Your task to perform on an android device: Add "usb-c to usb-a" to the cart on bestbuy, then select checkout. Image 0: 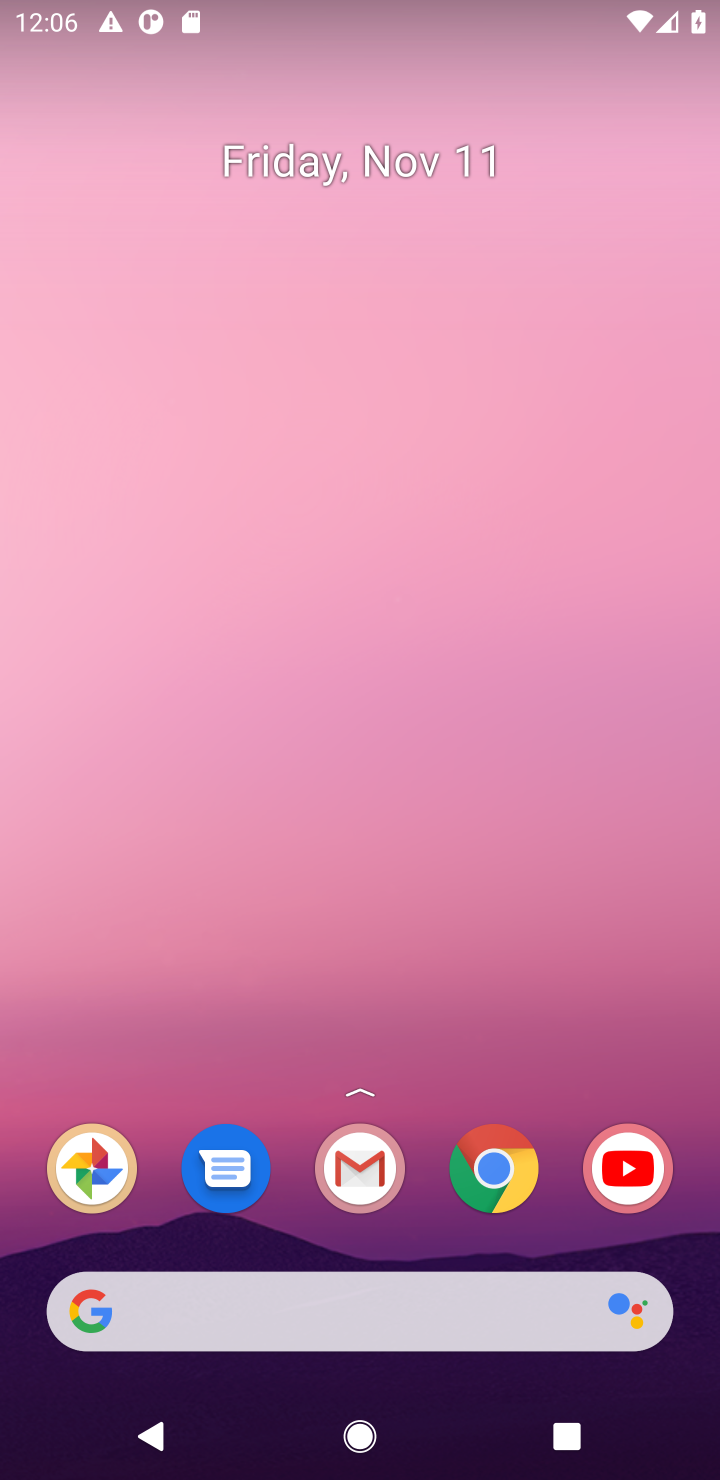
Step 0: click (487, 1182)
Your task to perform on an android device: Add "usb-c to usb-a" to the cart on bestbuy, then select checkout. Image 1: 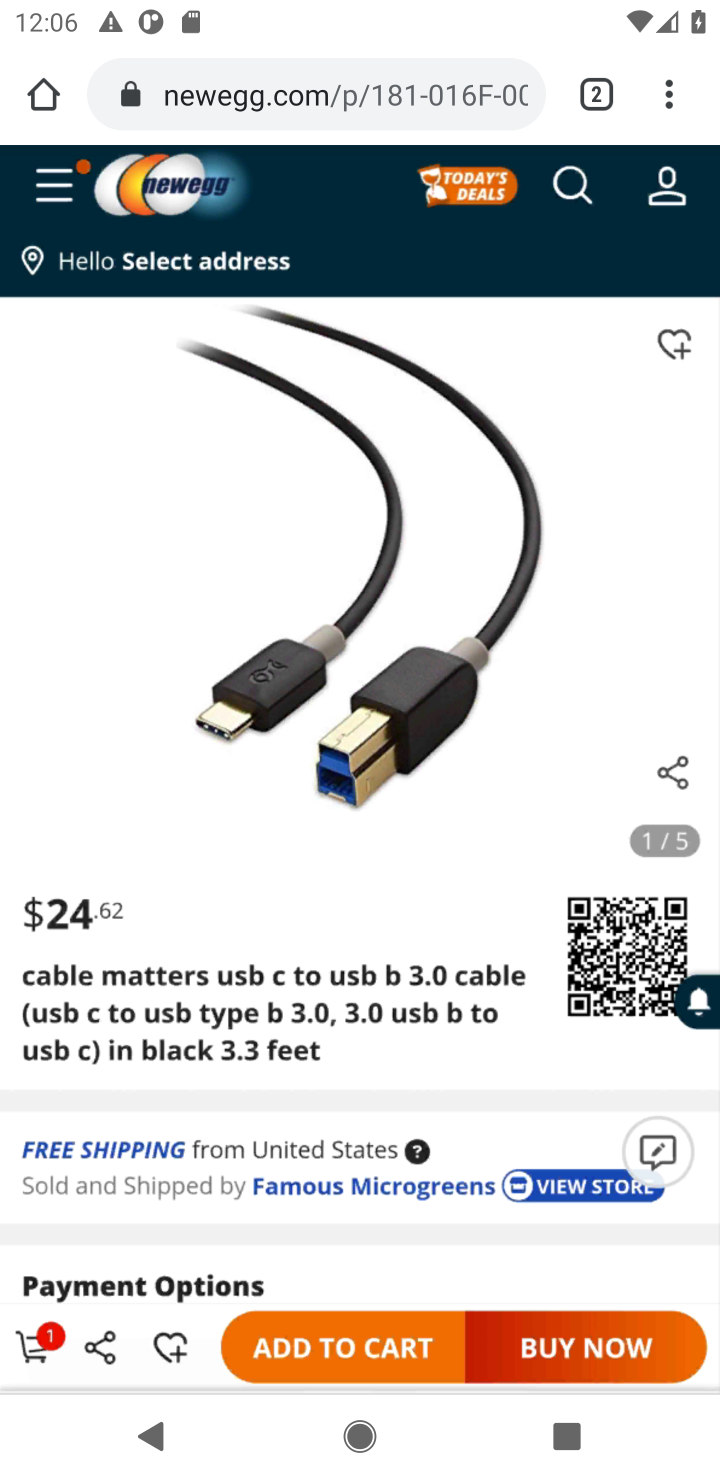
Step 1: click (348, 111)
Your task to perform on an android device: Add "usb-c to usb-a" to the cart on bestbuy, then select checkout. Image 2: 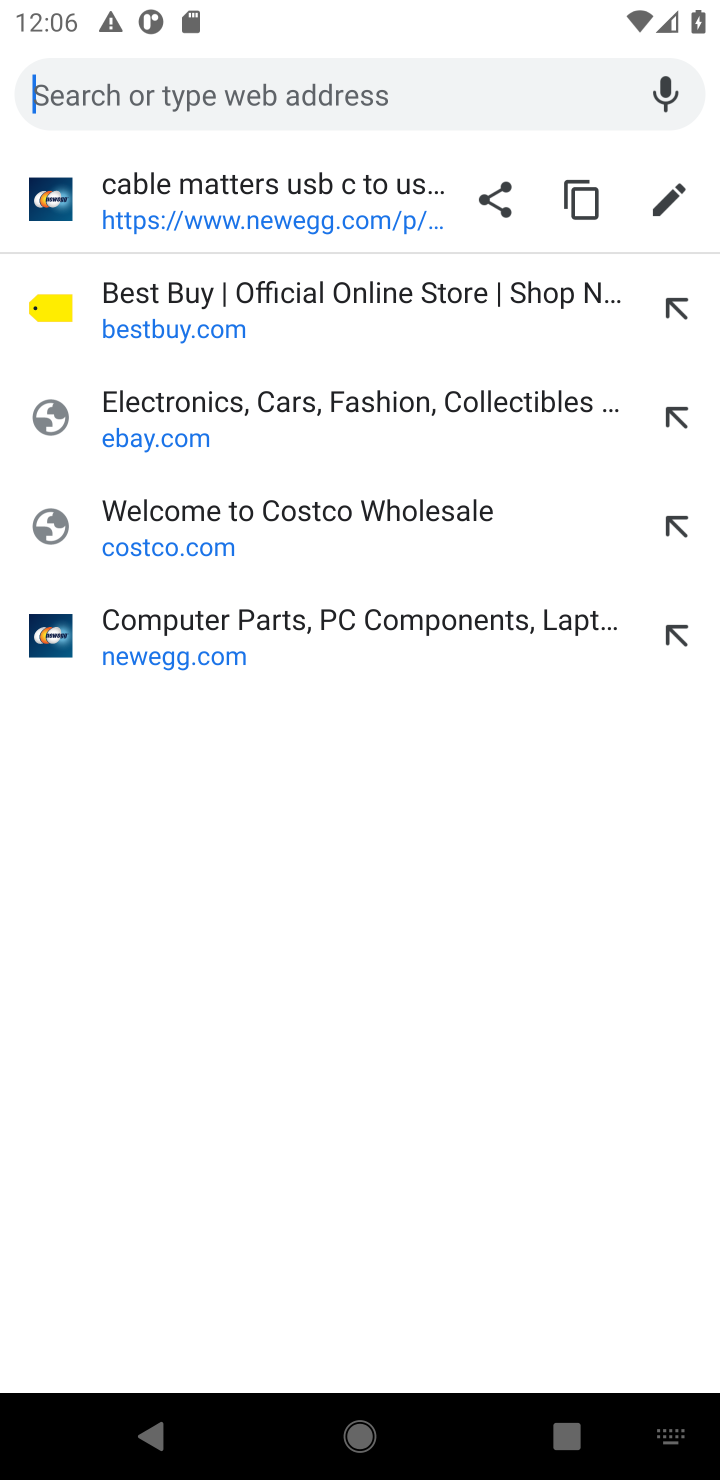
Step 2: click (152, 351)
Your task to perform on an android device: Add "usb-c to usb-a" to the cart on bestbuy, then select checkout. Image 3: 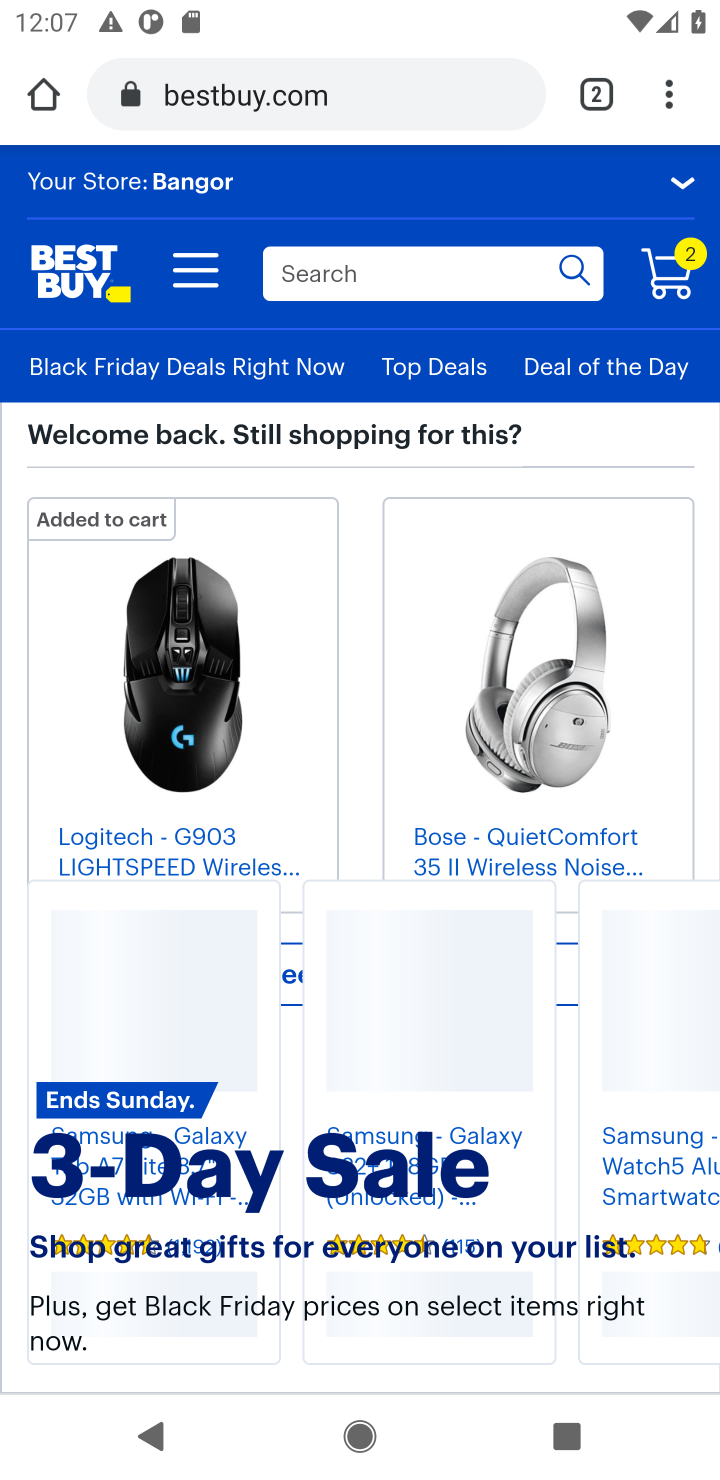
Step 3: click (364, 289)
Your task to perform on an android device: Add "usb-c to usb-a" to the cart on bestbuy, then select checkout. Image 4: 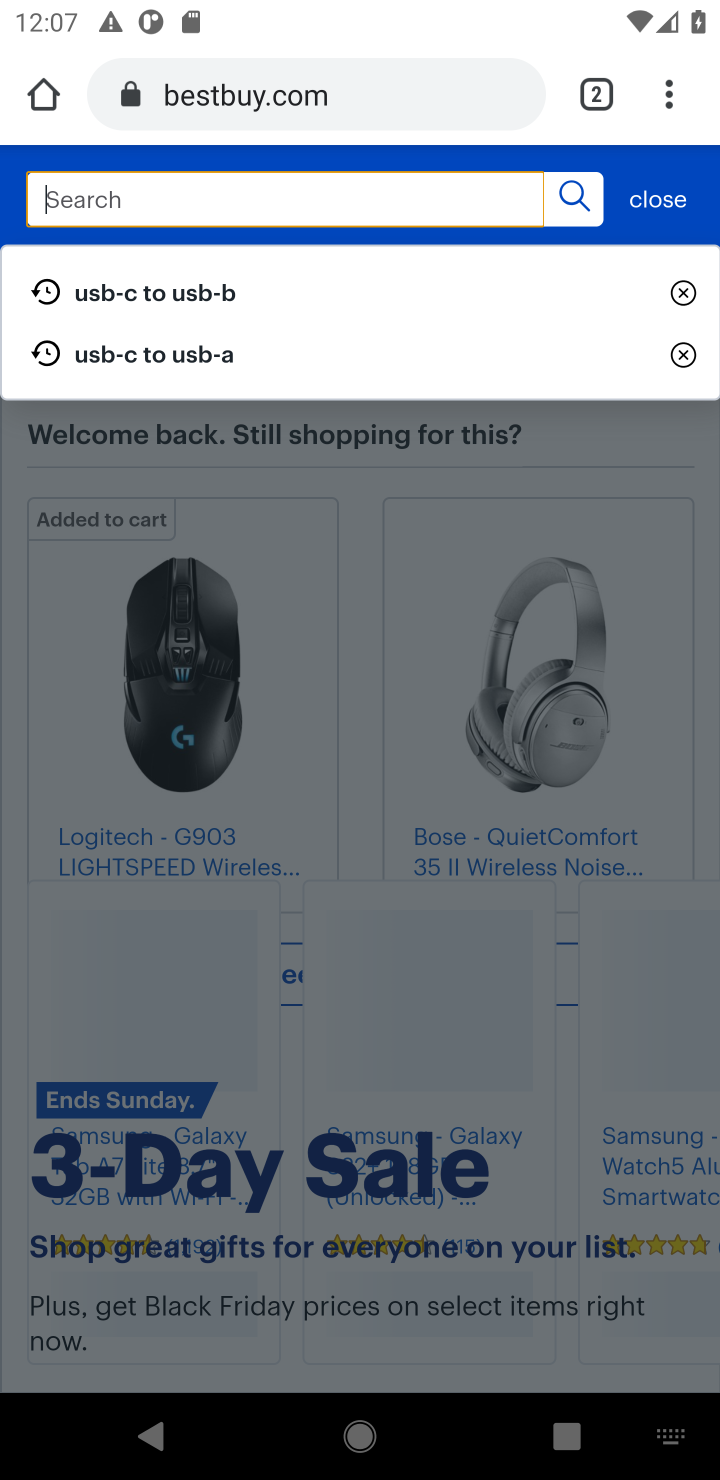
Step 4: type "usb-c to usb-a"
Your task to perform on an android device: Add "usb-c to usb-a" to the cart on bestbuy, then select checkout. Image 5: 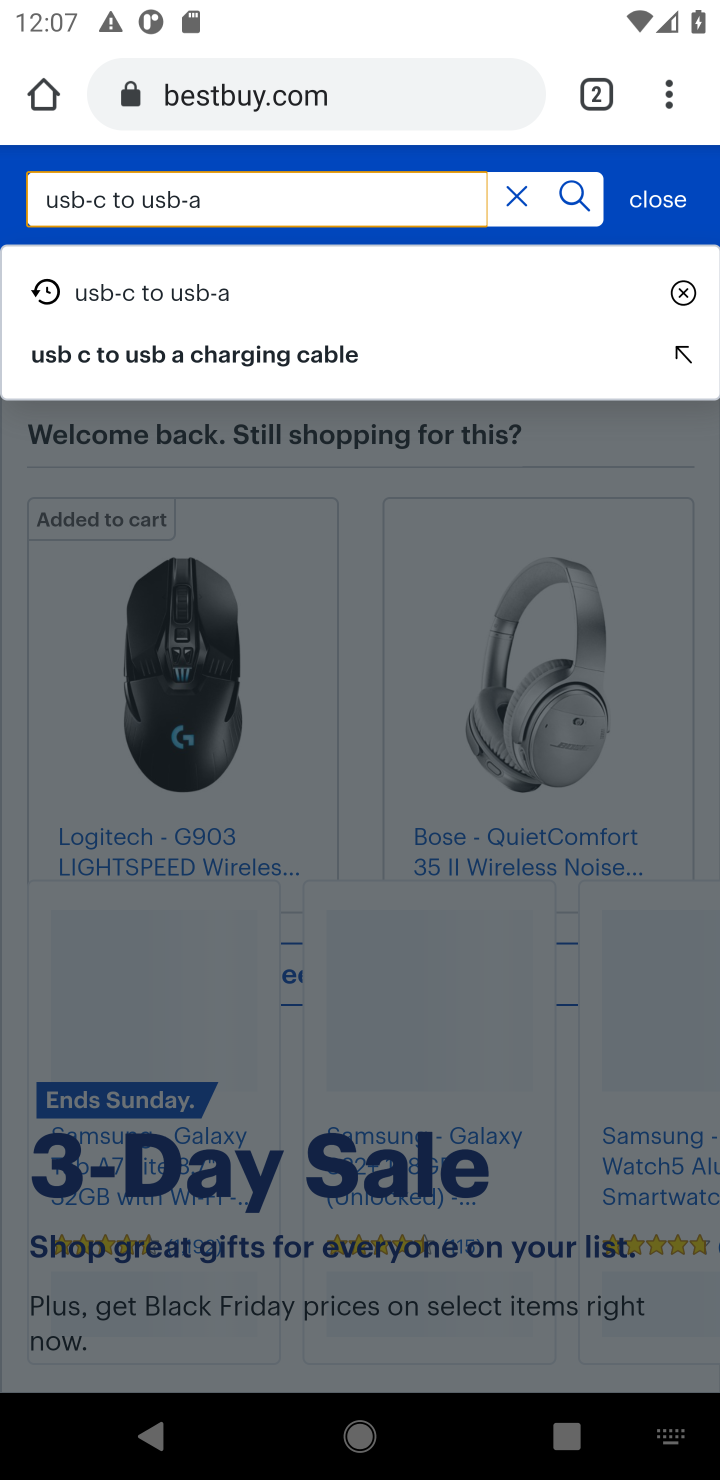
Step 5: click (166, 299)
Your task to perform on an android device: Add "usb-c to usb-a" to the cart on bestbuy, then select checkout. Image 6: 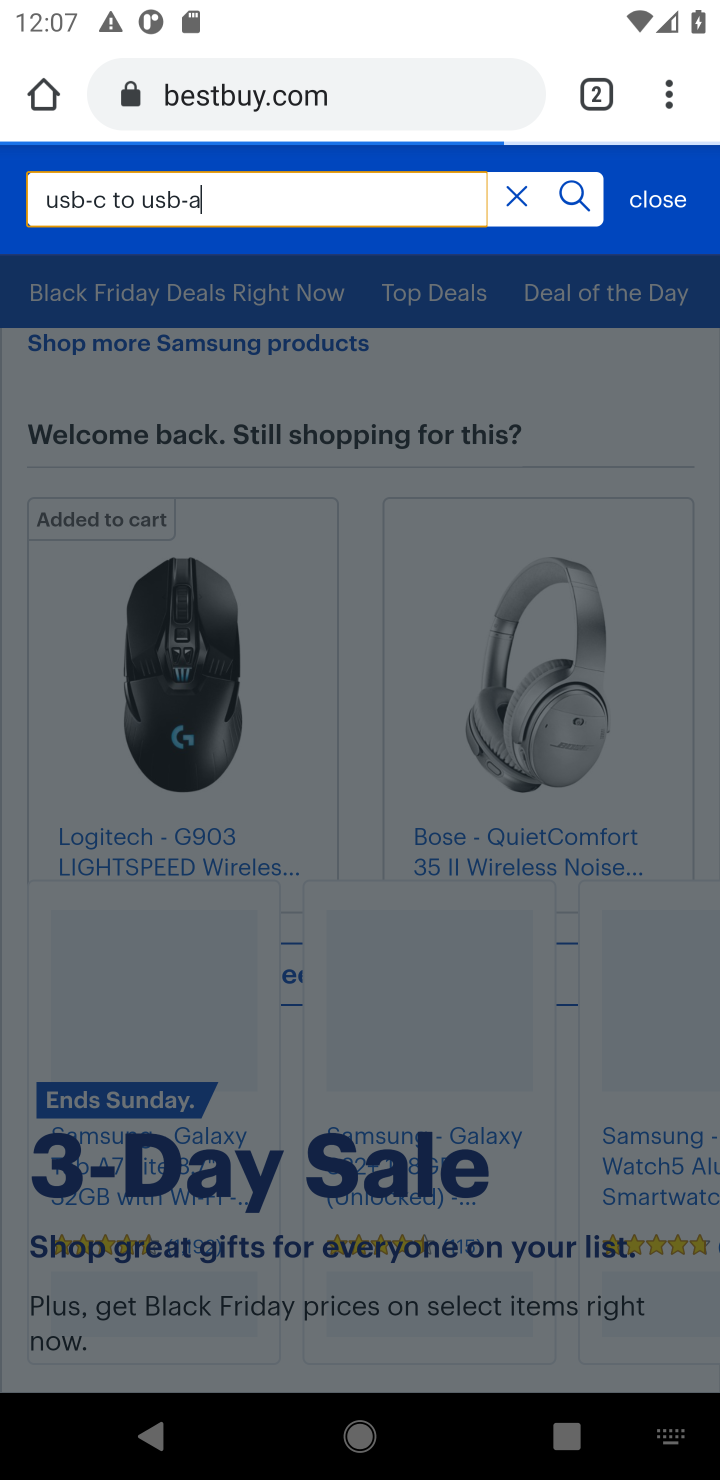
Step 6: click (569, 199)
Your task to perform on an android device: Add "usb-c to usb-a" to the cart on bestbuy, then select checkout. Image 7: 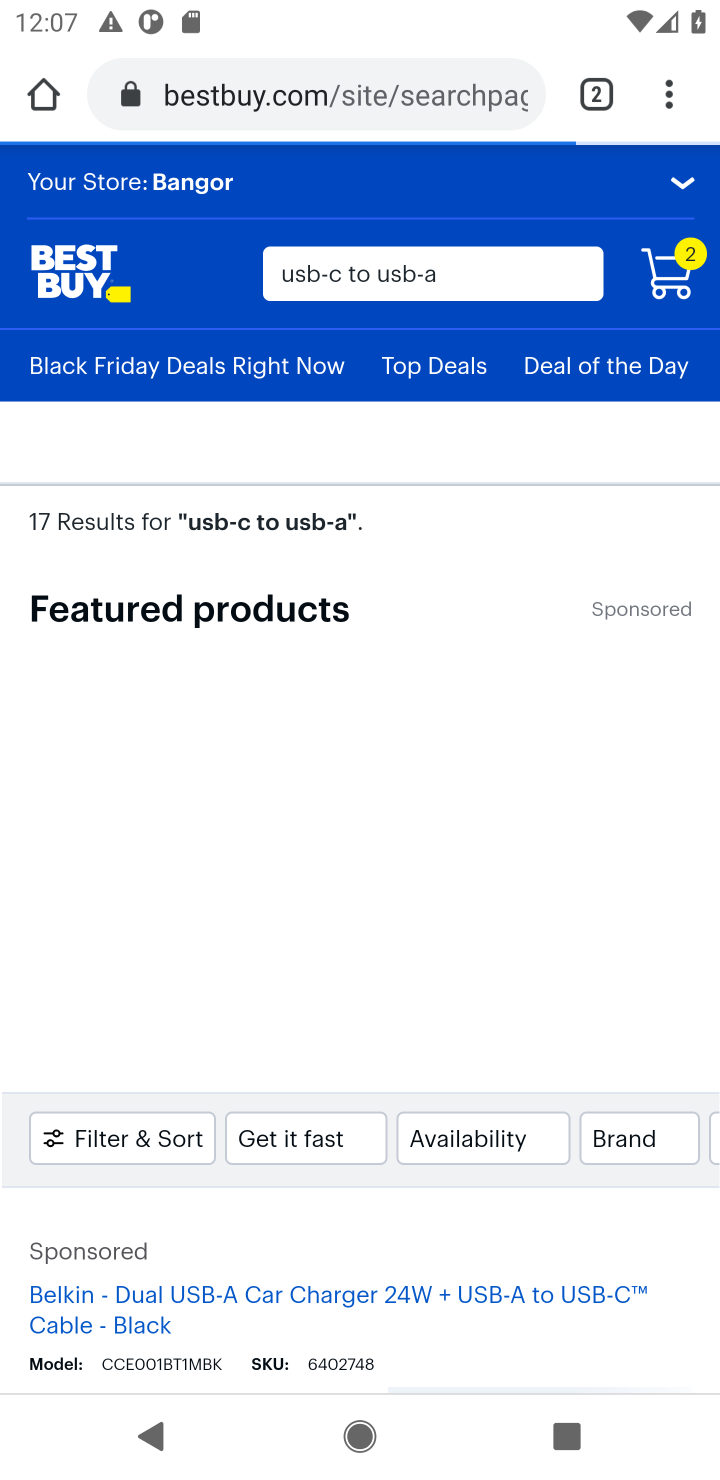
Step 7: drag from (359, 905) to (377, 539)
Your task to perform on an android device: Add "usb-c to usb-a" to the cart on bestbuy, then select checkout. Image 8: 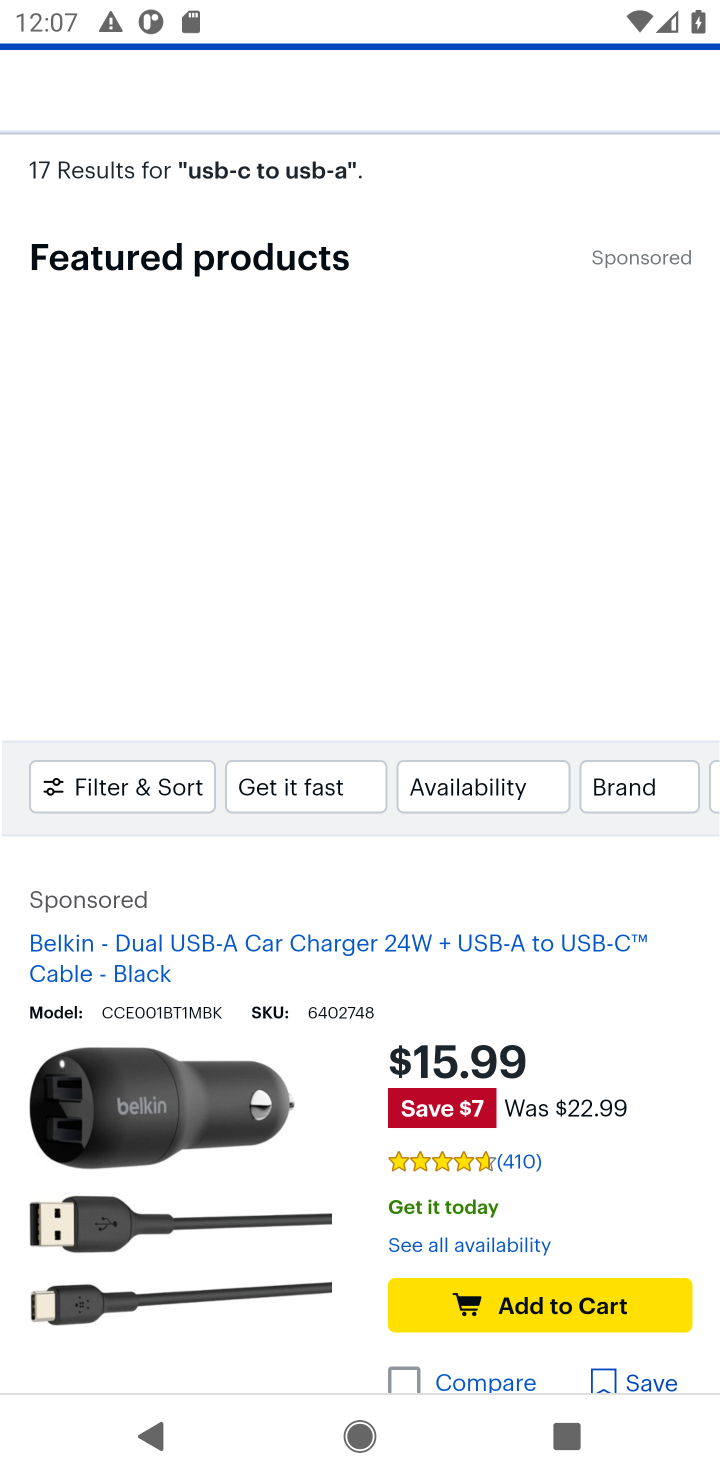
Step 8: drag from (269, 1083) to (311, 683)
Your task to perform on an android device: Add "usb-c to usb-a" to the cart on bestbuy, then select checkout. Image 9: 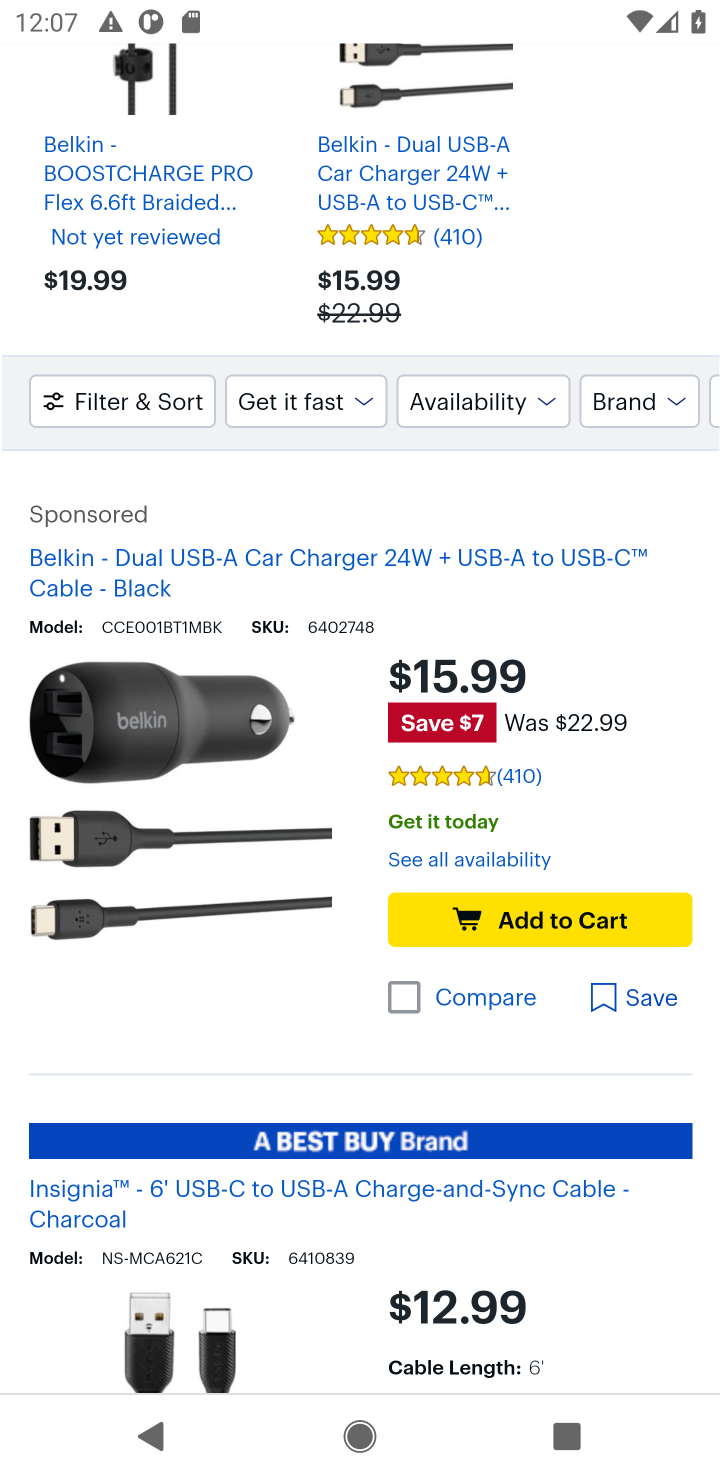
Step 9: drag from (201, 850) to (163, 209)
Your task to perform on an android device: Add "usb-c to usb-a" to the cart on bestbuy, then select checkout. Image 10: 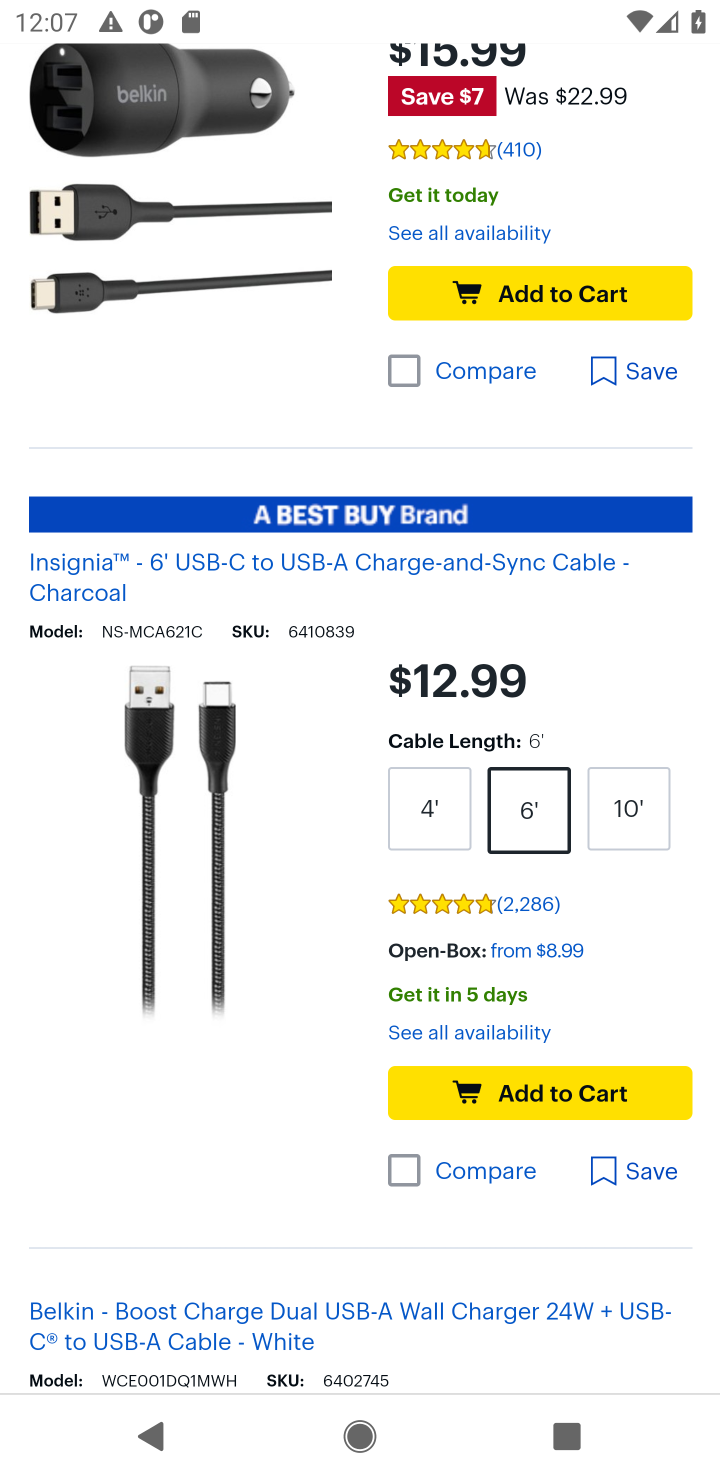
Step 10: click (528, 1095)
Your task to perform on an android device: Add "usb-c to usb-a" to the cart on bestbuy, then select checkout. Image 11: 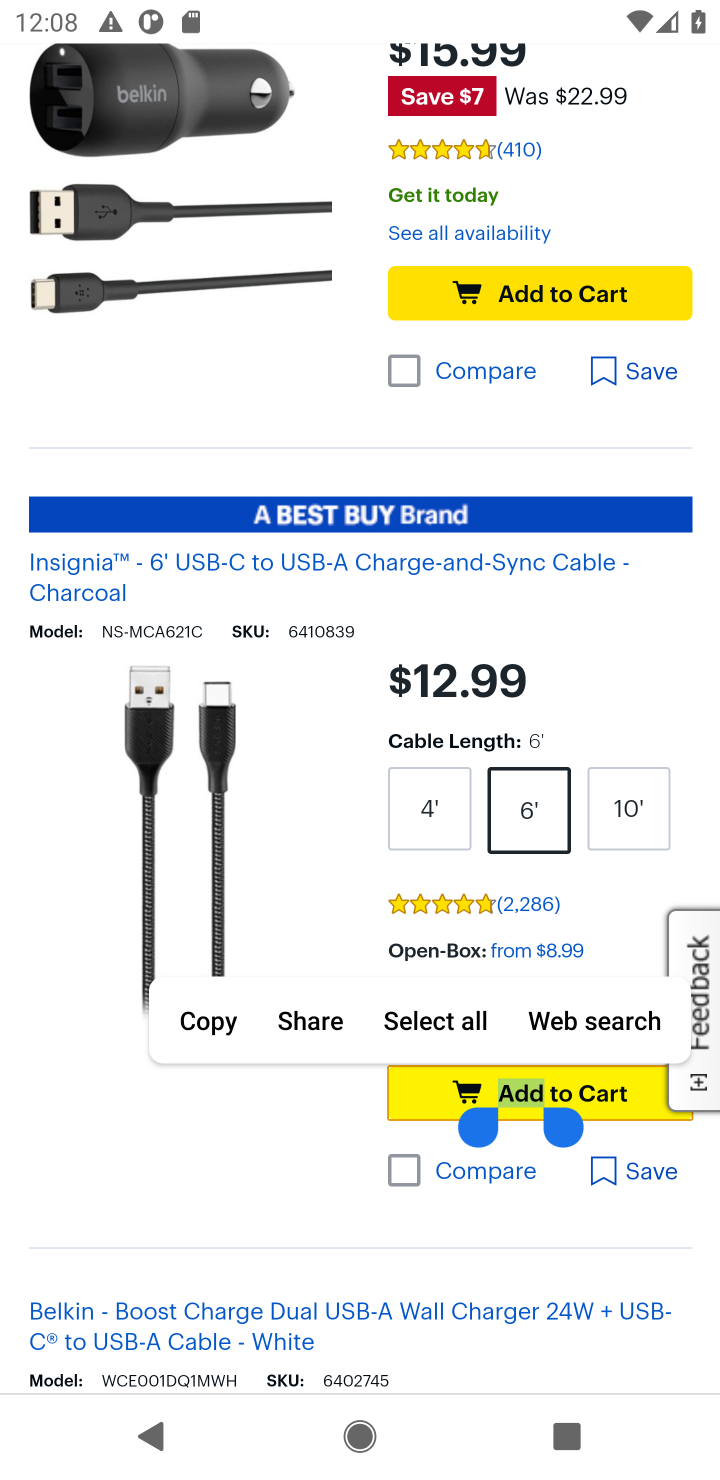
Step 11: click (586, 1093)
Your task to perform on an android device: Add "usb-c to usb-a" to the cart on bestbuy, then select checkout. Image 12: 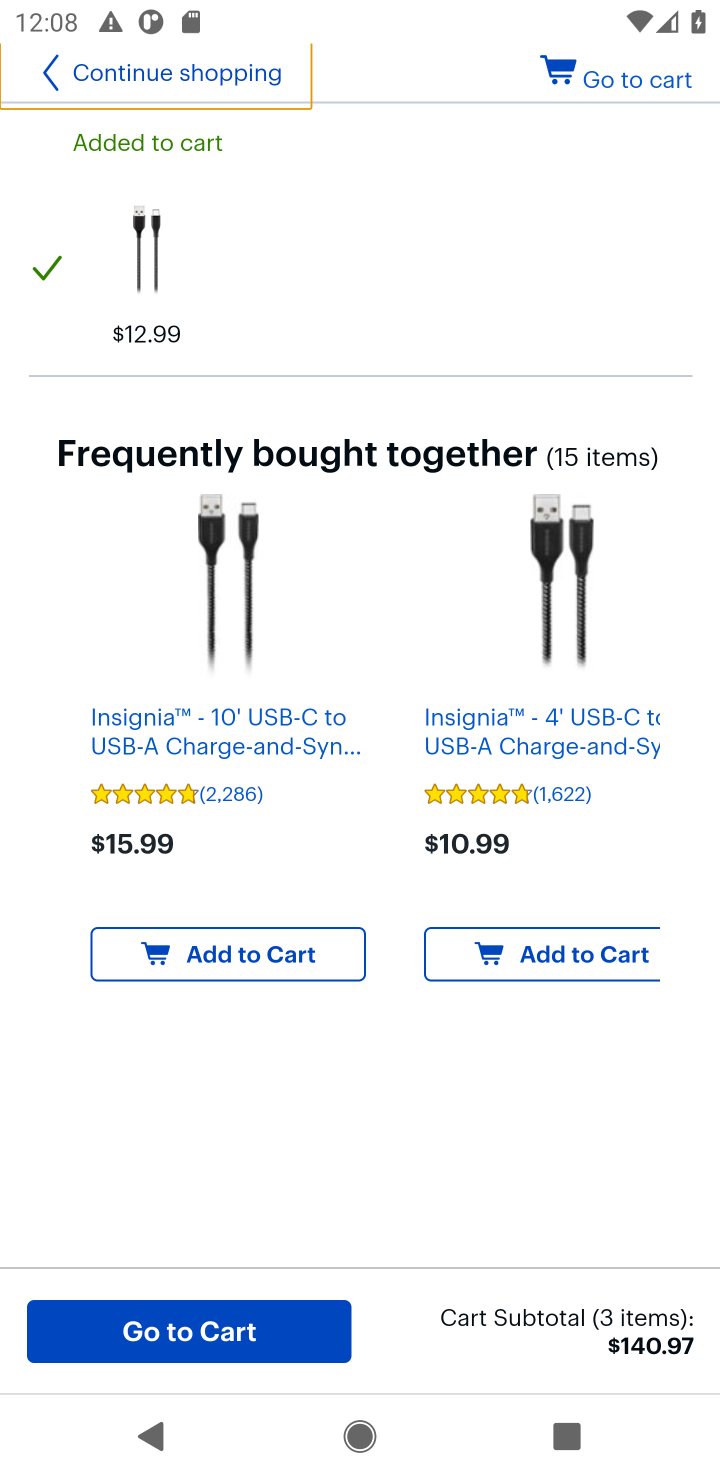
Step 12: click (638, 81)
Your task to perform on an android device: Add "usb-c to usb-a" to the cart on bestbuy, then select checkout. Image 13: 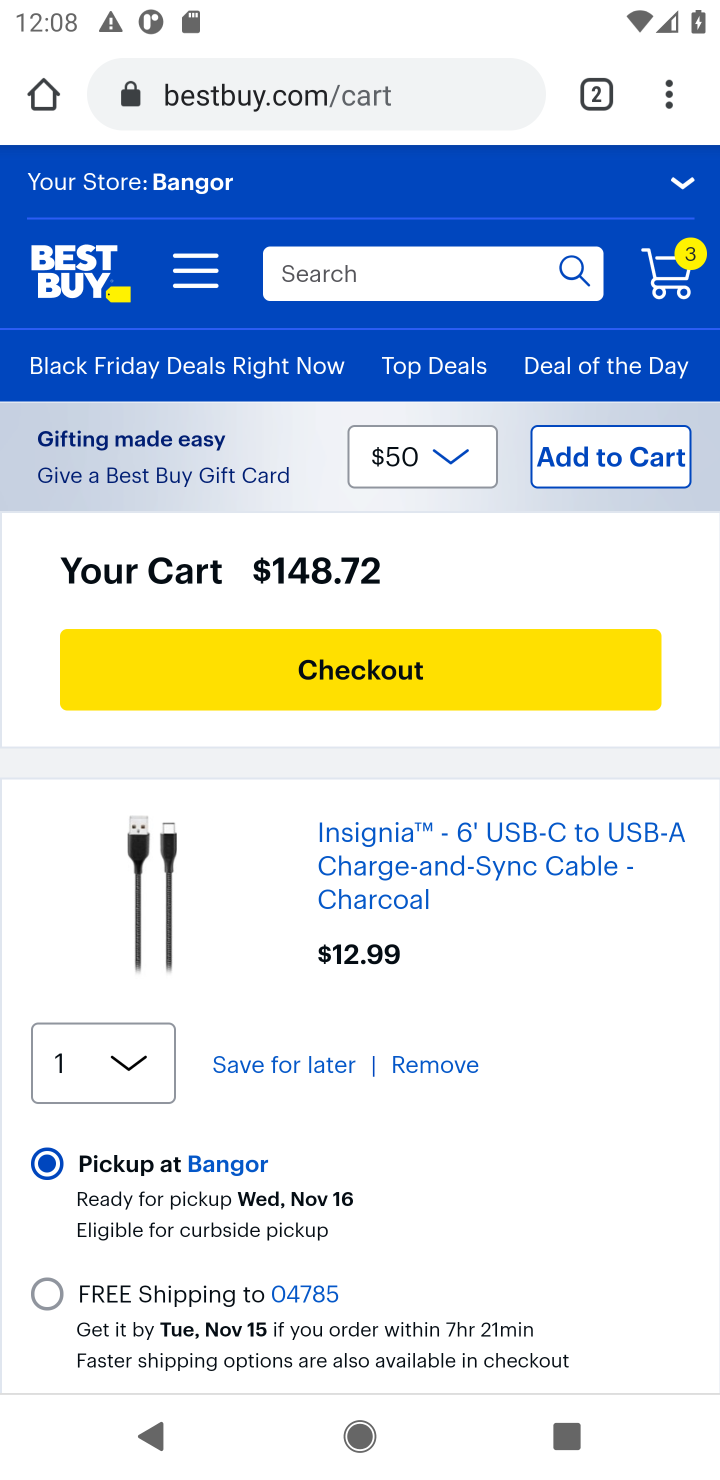
Step 13: click (332, 686)
Your task to perform on an android device: Add "usb-c to usb-a" to the cart on bestbuy, then select checkout. Image 14: 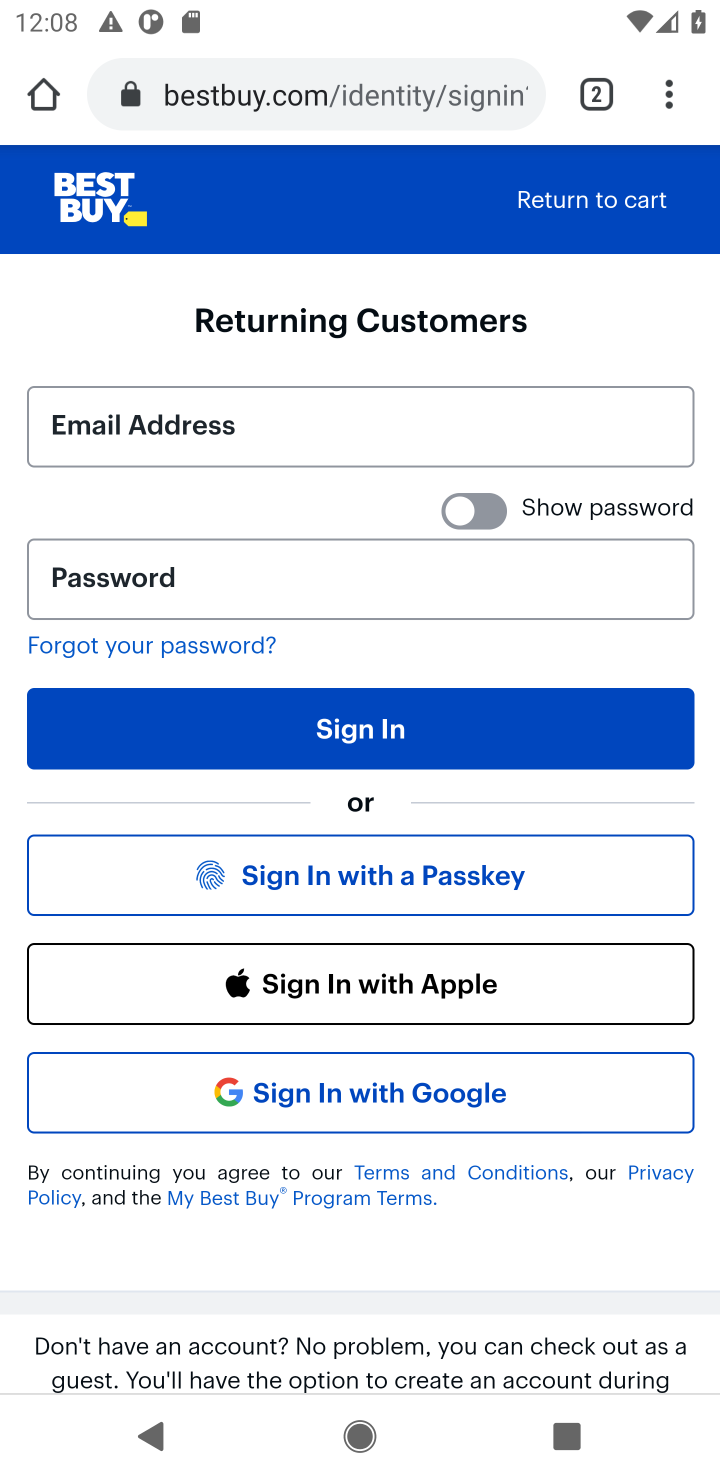
Step 14: task complete